Your task to perform on an android device: Open the calendar app, open the side menu, and click the "Day" option Image 0: 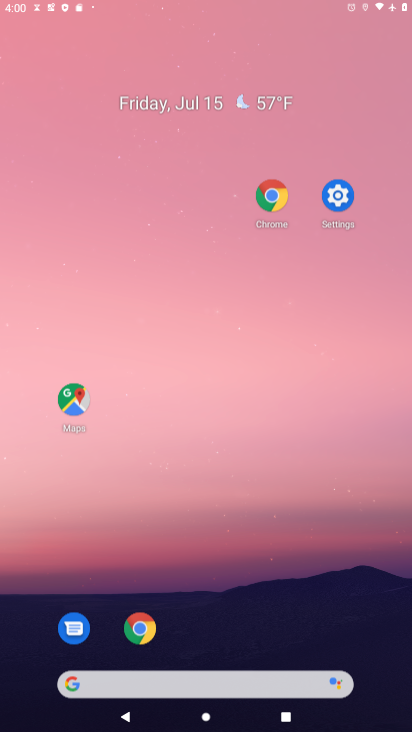
Step 0: click (262, 188)
Your task to perform on an android device: Open the calendar app, open the side menu, and click the "Day" option Image 1: 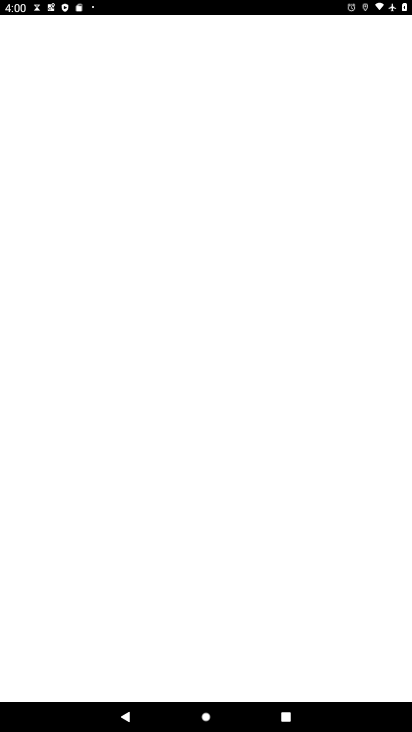
Step 1: click (202, 415)
Your task to perform on an android device: Open the calendar app, open the side menu, and click the "Day" option Image 2: 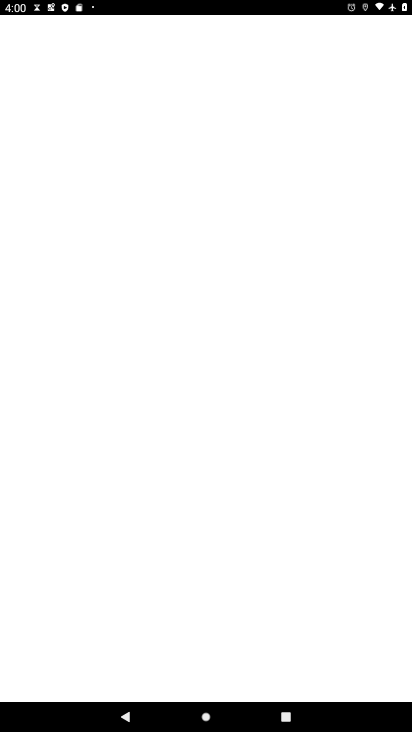
Step 2: drag from (235, 483) to (285, 131)
Your task to perform on an android device: Open the calendar app, open the side menu, and click the "Day" option Image 3: 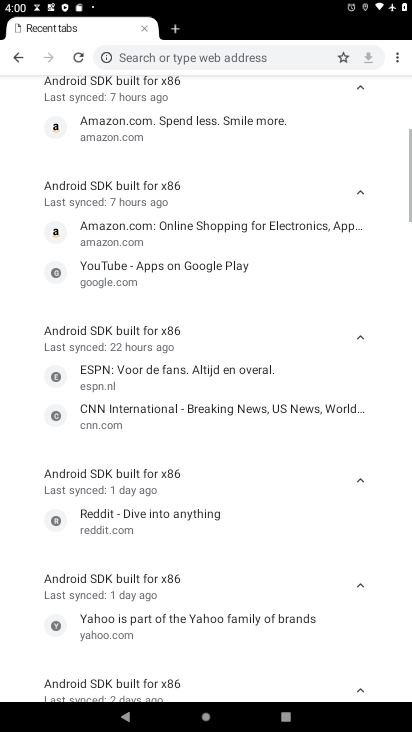
Step 3: press back button
Your task to perform on an android device: Open the calendar app, open the side menu, and click the "Day" option Image 4: 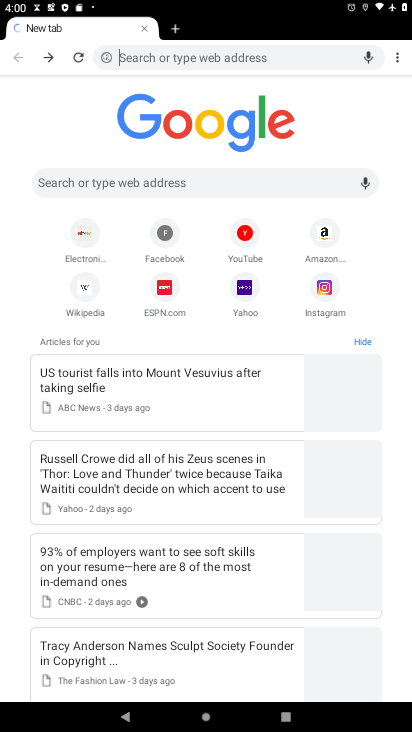
Step 4: click (139, 27)
Your task to perform on an android device: Open the calendar app, open the side menu, and click the "Day" option Image 5: 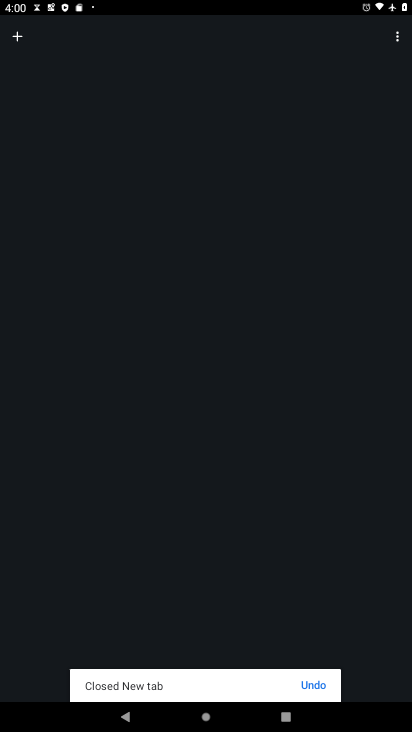
Step 5: press home button
Your task to perform on an android device: Open the calendar app, open the side menu, and click the "Day" option Image 6: 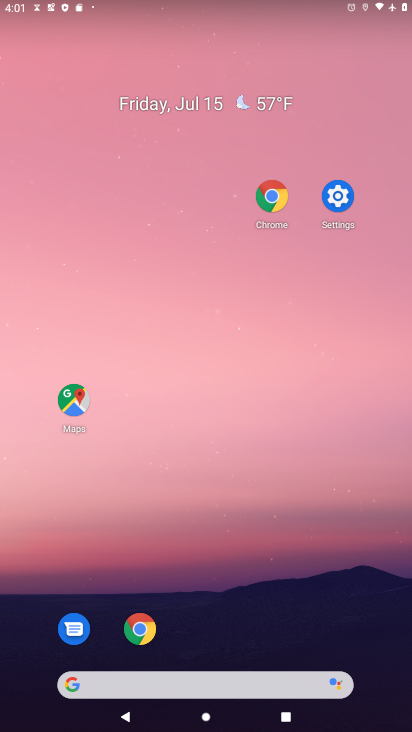
Step 6: drag from (272, 634) to (248, 86)
Your task to perform on an android device: Open the calendar app, open the side menu, and click the "Day" option Image 7: 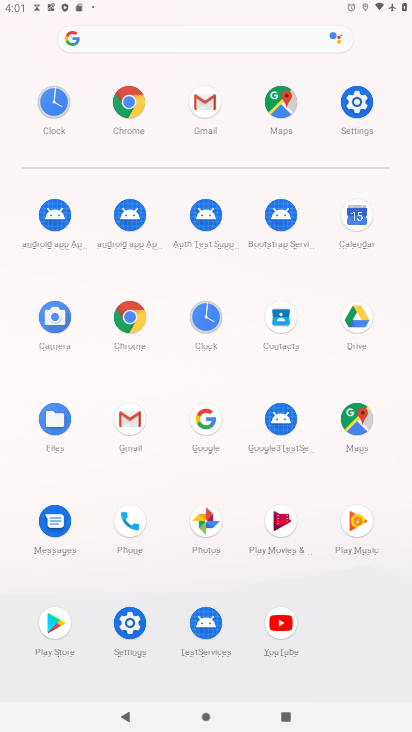
Step 7: click (357, 210)
Your task to perform on an android device: Open the calendar app, open the side menu, and click the "Day" option Image 8: 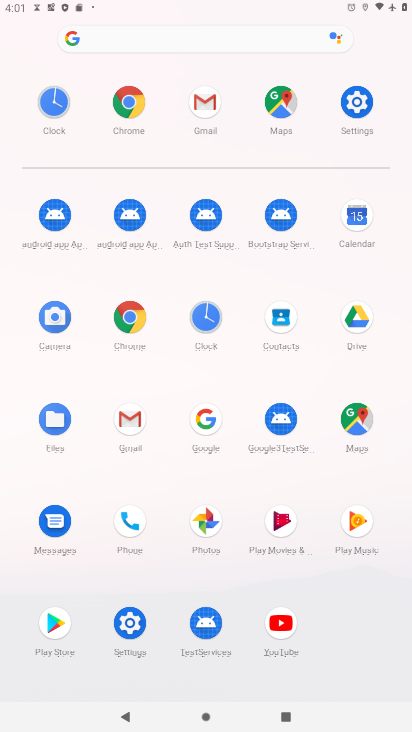
Step 8: click (357, 214)
Your task to perform on an android device: Open the calendar app, open the side menu, and click the "Day" option Image 9: 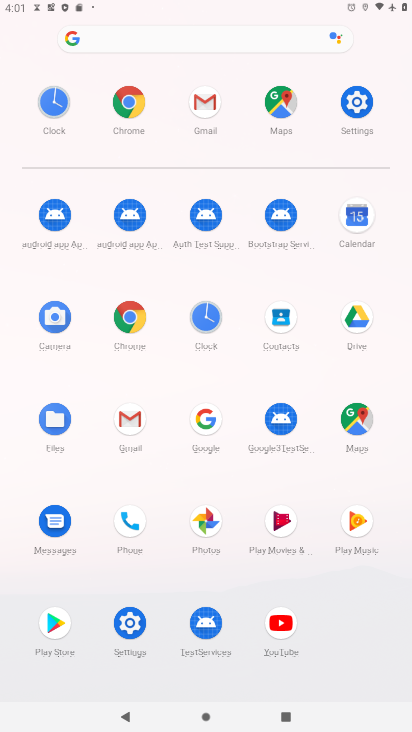
Step 9: click (357, 216)
Your task to perform on an android device: Open the calendar app, open the side menu, and click the "Day" option Image 10: 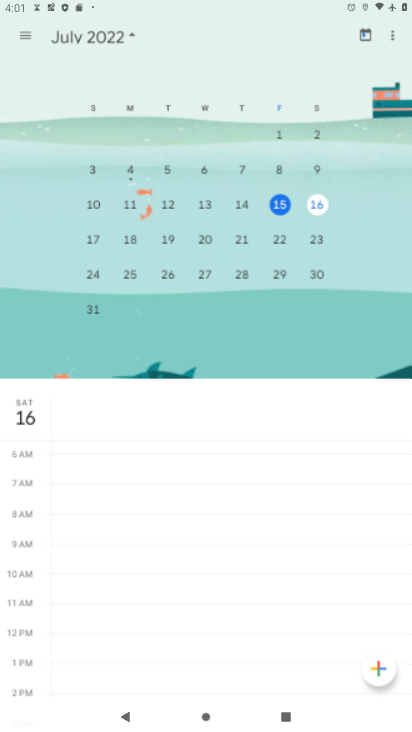
Step 10: click (358, 218)
Your task to perform on an android device: Open the calendar app, open the side menu, and click the "Day" option Image 11: 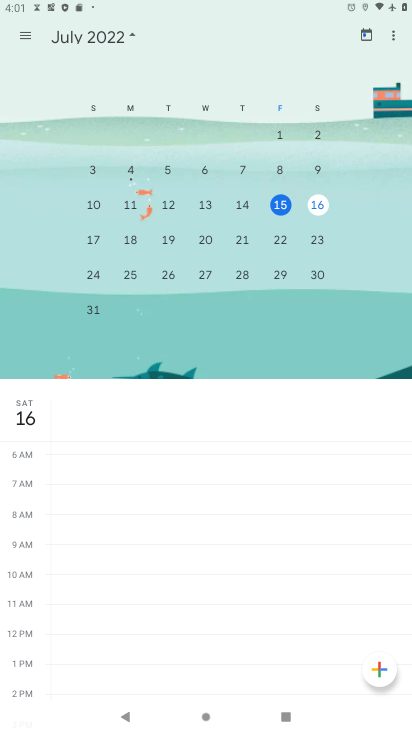
Step 11: click (21, 36)
Your task to perform on an android device: Open the calendar app, open the side menu, and click the "Day" option Image 12: 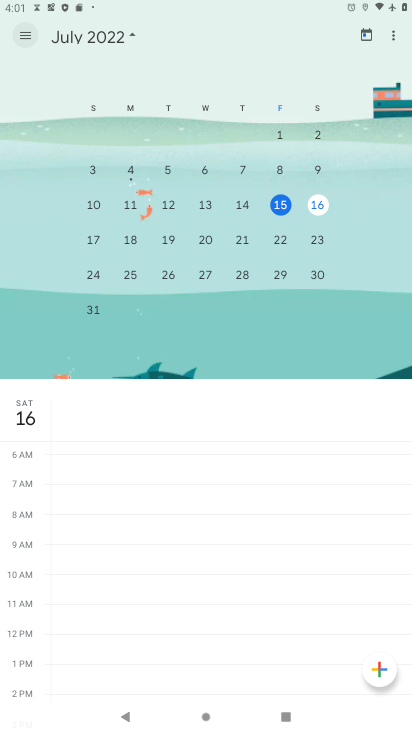
Step 12: click (21, 36)
Your task to perform on an android device: Open the calendar app, open the side menu, and click the "Day" option Image 13: 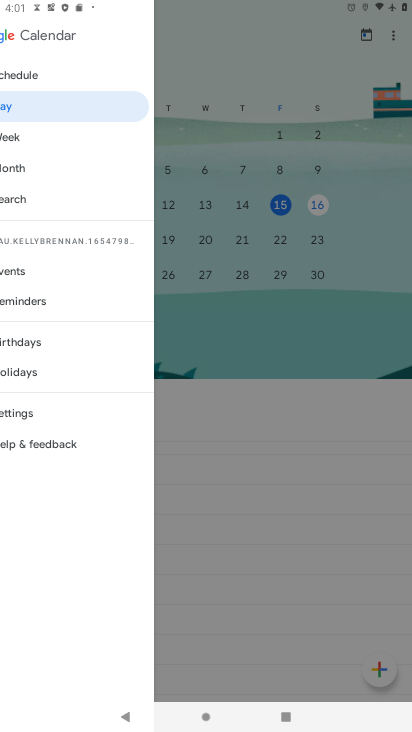
Step 13: click (21, 36)
Your task to perform on an android device: Open the calendar app, open the side menu, and click the "Day" option Image 14: 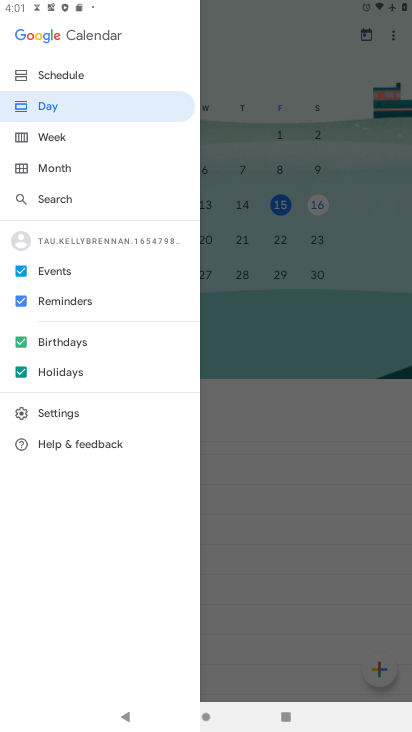
Step 14: click (66, 107)
Your task to perform on an android device: Open the calendar app, open the side menu, and click the "Day" option Image 15: 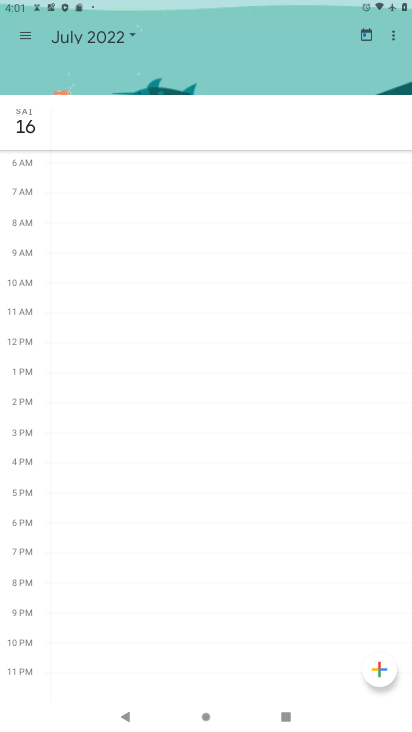
Step 15: click (28, 38)
Your task to perform on an android device: Open the calendar app, open the side menu, and click the "Day" option Image 16: 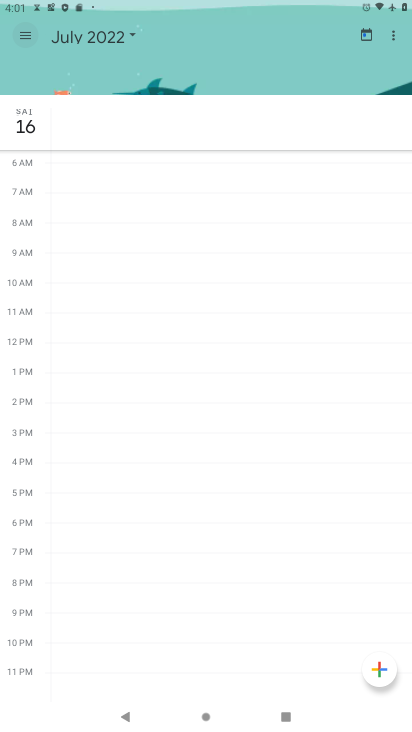
Step 16: click (27, 40)
Your task to perform on an android device: Open the calendar app, open the side menu, and click the "Day" option Image 17: 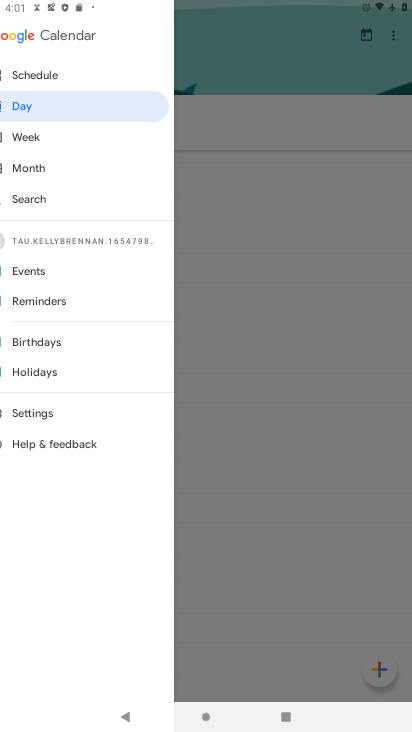
Step 17: click (27, 40)
Your task to perform on an android device: Open the calendar app, open the side menu, and click the "Day" option Image 18: 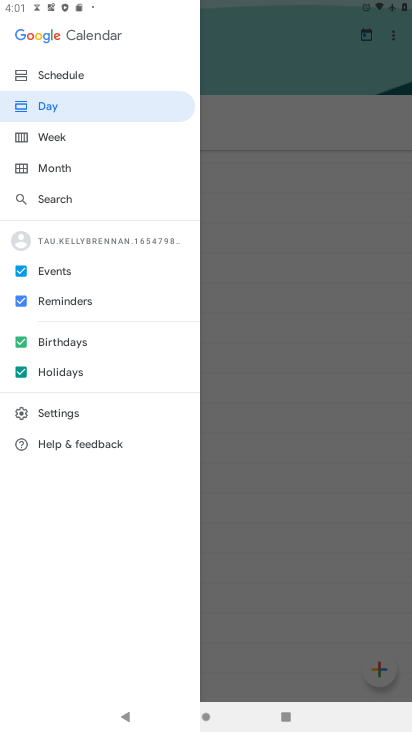
Step 18: click (279, 213)
Your task to perform on an android device: Open the calendar app, open the side menu, and click the "Day" option Image 19: 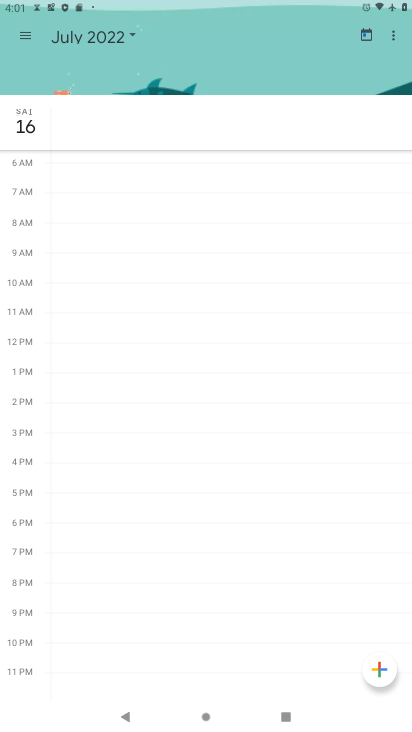
Step 19: task complete